Your task to perform on an android device: turn off airplane mode Image 0: 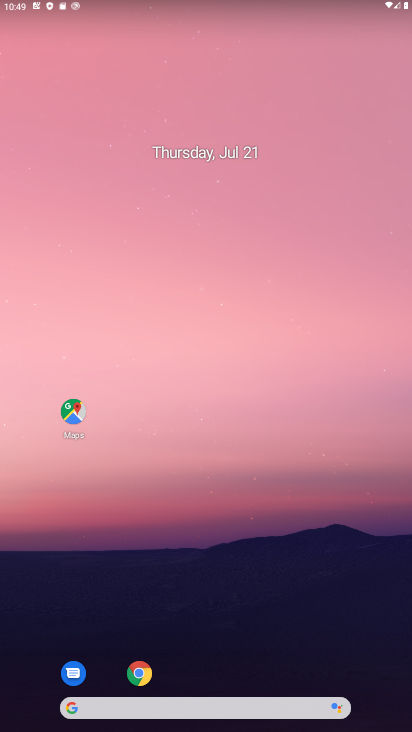
Step 0: drag from (197, 658) to (189, 245)
Your task to perform on an android device: turn off airplane mode Image 1: 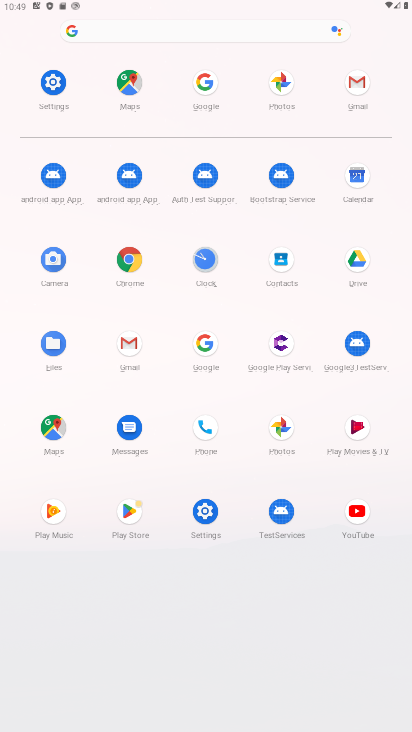
Step 1: click (218, 515)
Your task to perform on an android device: turn off airplane mode Image 2: 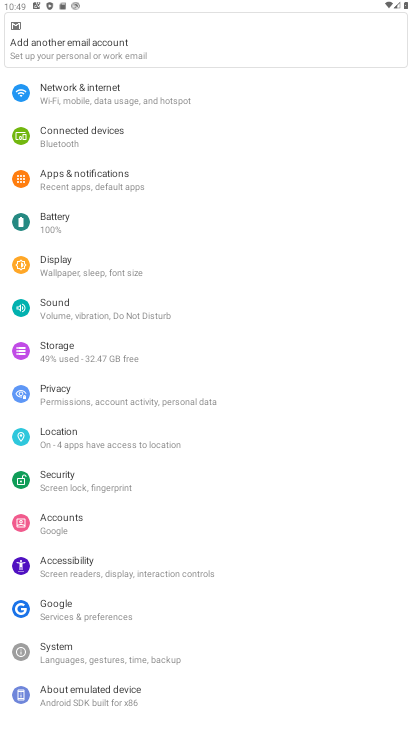
Step 2: click (77, 112)
Your task to perform on an android device: turn off airplane mode Image 3: 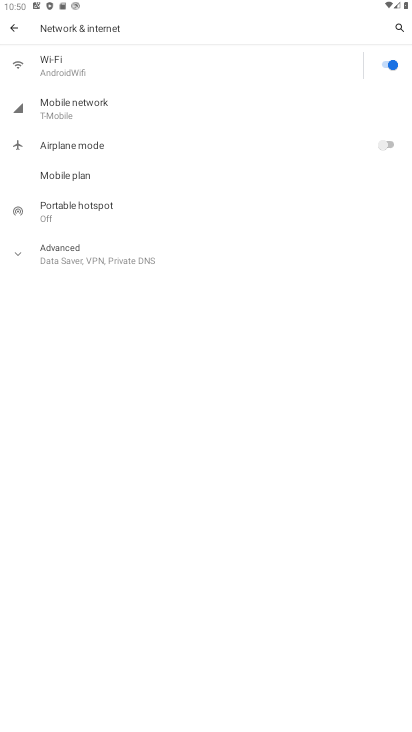
Step 3: task complete